Your task to perform on an android device: see creations saved in the google photos Image 0: 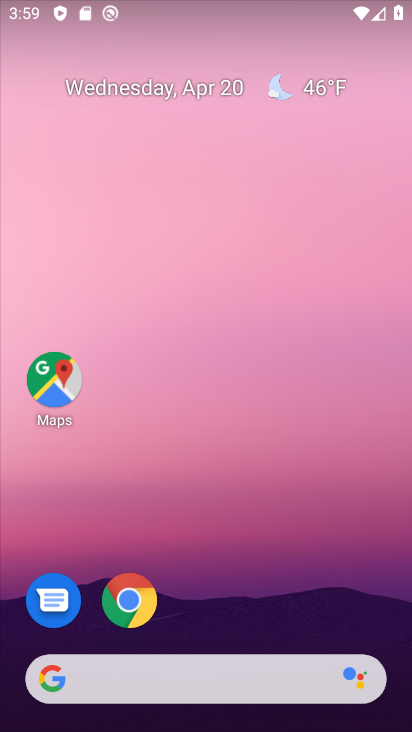
Step 0: drag from (205, 595) to (234, 75)
Your task to perform on an android device: see creations saved in the google photos Image 1: 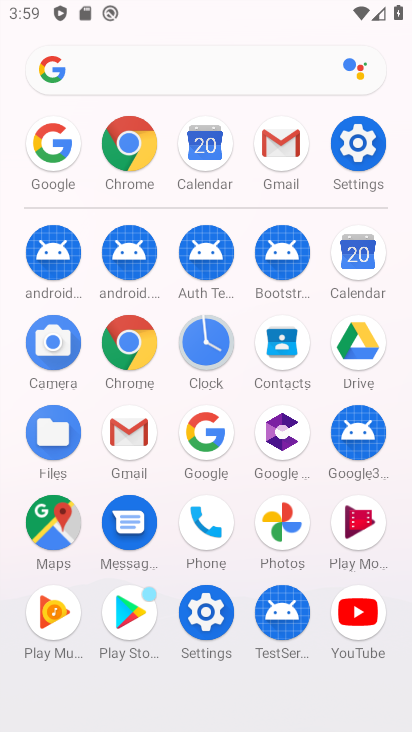
Step 1: click (285, 525)
Your task to perform on an android device: see creations saved in the google photos Image 2: 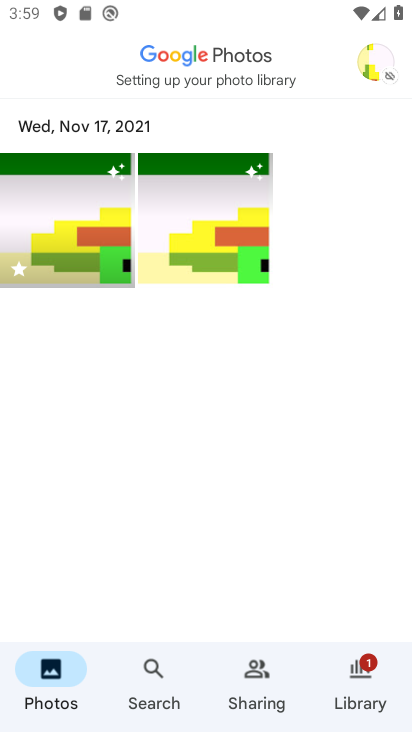
Step 2: click (151, 673)
Your task to perform on an android device: see creations saved in the google photos Image 3: 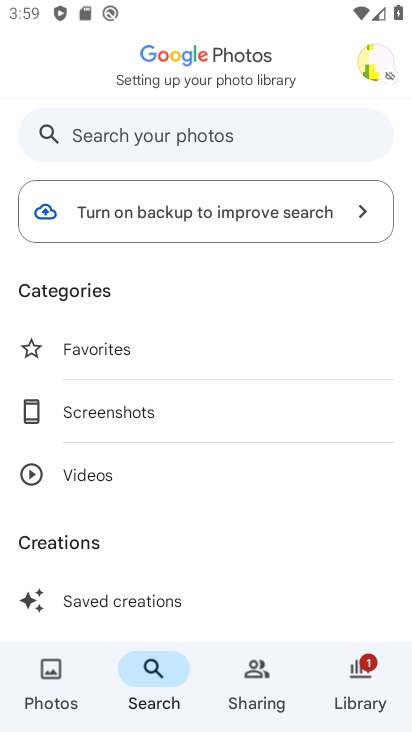
Step 3: click (122, 588)
Your task to perform on an android device: see creations saved in the google photos Image 4: 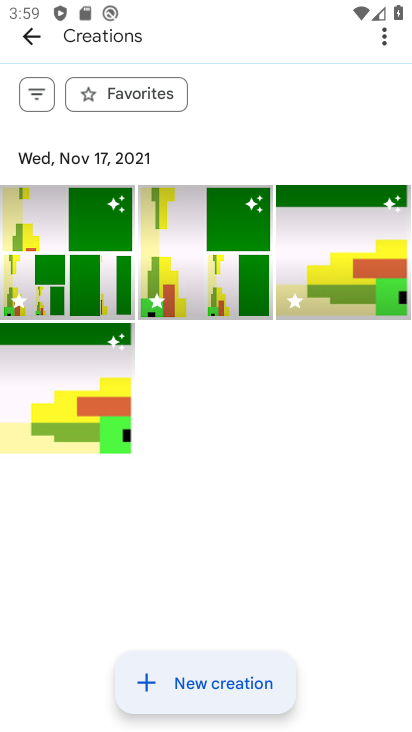
Step 4: task complete